Your task to perform on an android device: Go to ESPN.com Image 0: 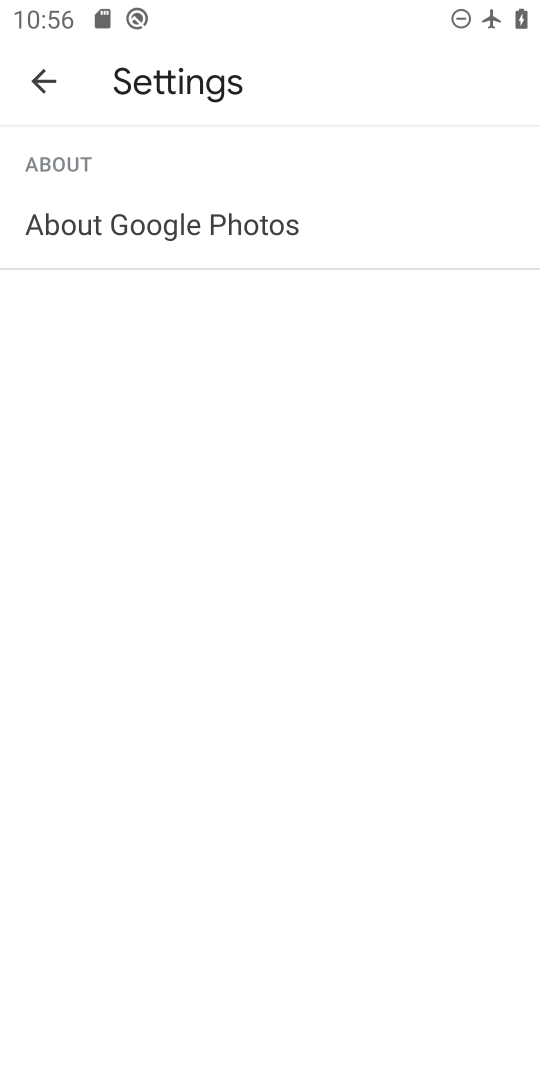
Step 0: press home button
Your task to perform on an android device: Go to ESPN.com Image 1: 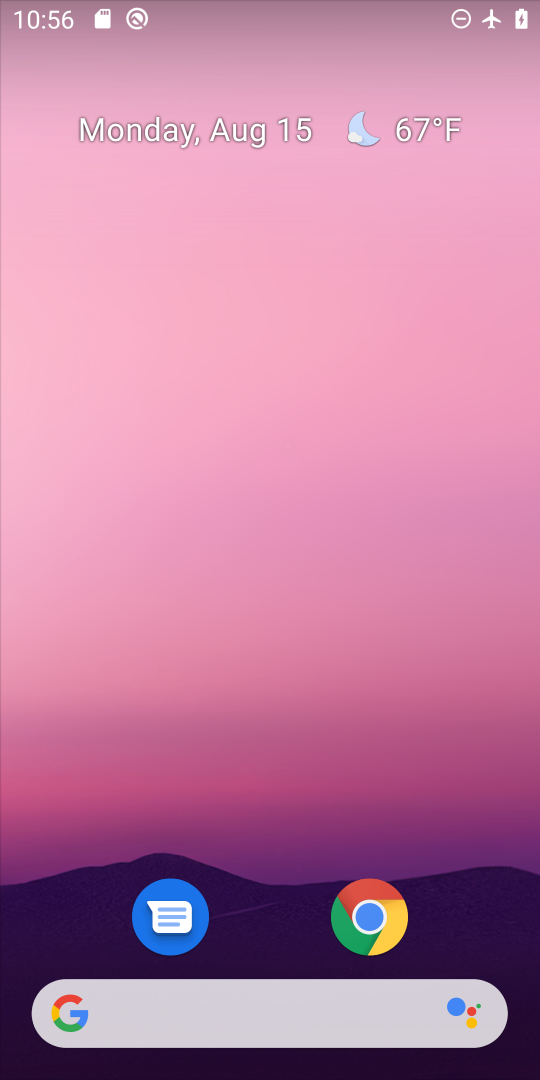
Step 1: click (379, 981)
Your task to perform on an android device: Go to ESPN.com Image 2: 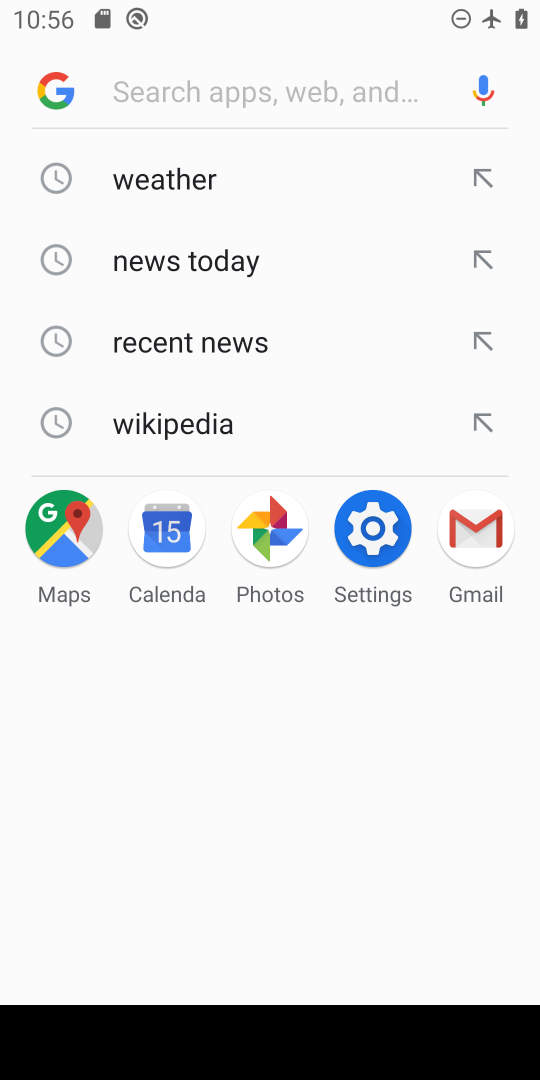
Step 2: type "espn.com"
Your task to perform on an android device: Go to ESPN.com Image 3: 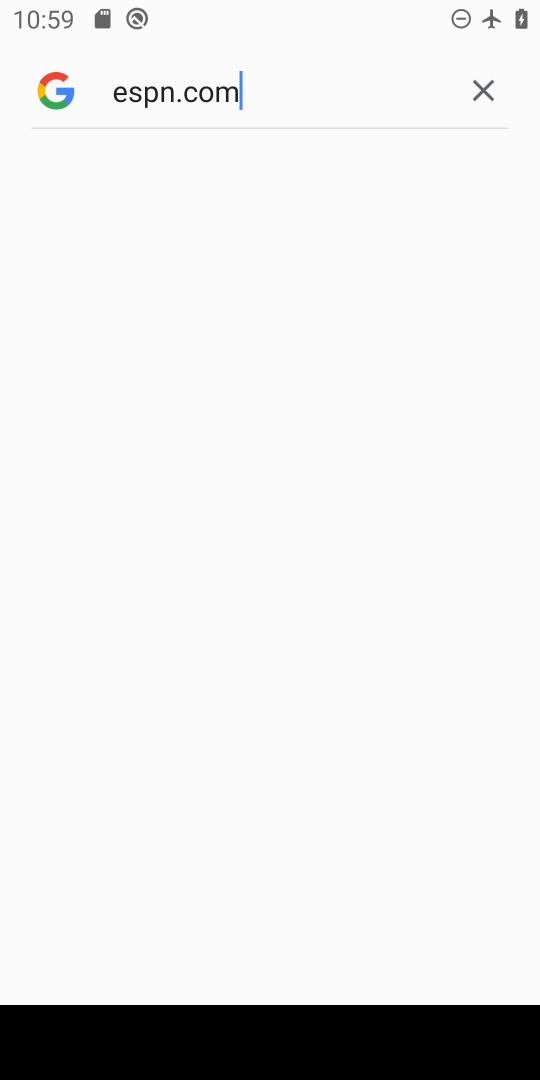
Step 3: task complete